Your task to perform on an android device: turn on javascript in the chrome app Image 0: 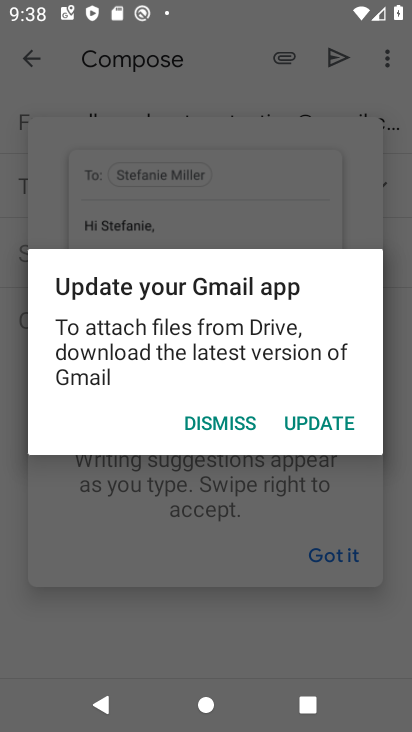
Step 0: press home button
Your task to perform on an android device: turn on javascript in the chrome app Image 1: 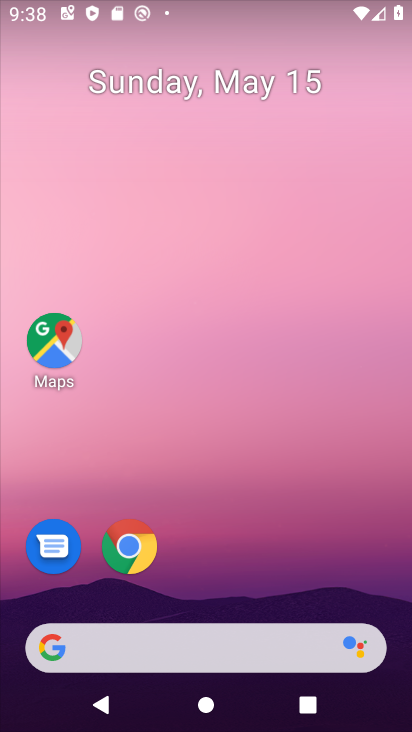
Step 1: click (142, 539)
Your task to perform on an android device: turn on javascript in the chrome app Image 2: 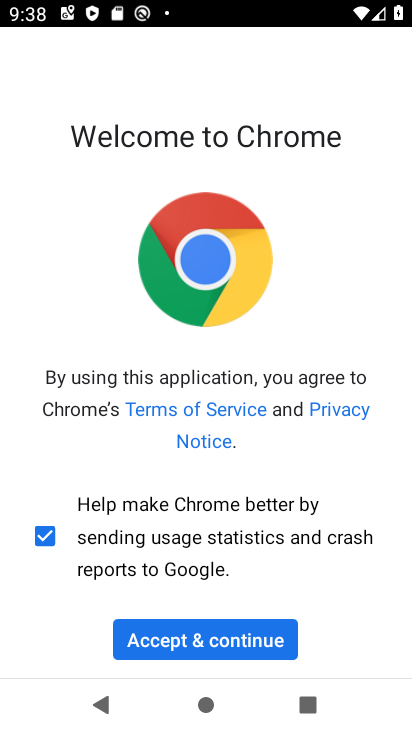
Step 2: click (204, 644)
Your task to perform on an android device: turn on javascript in the chrome app Image 3: 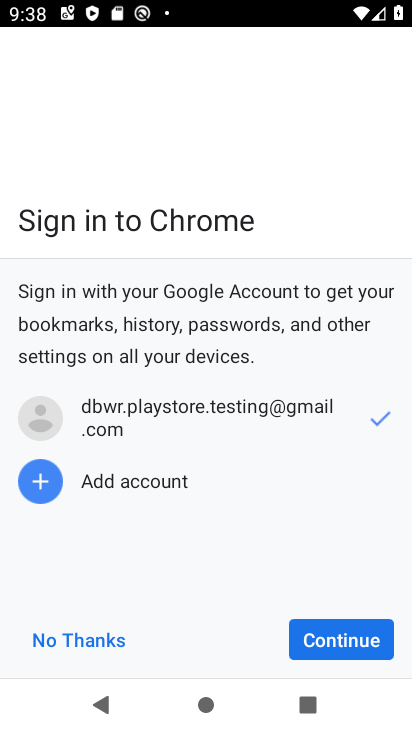
Step 3: click (318, 636)
Your task to perform on an android device: turn on javascript in the chrome app Image 4: 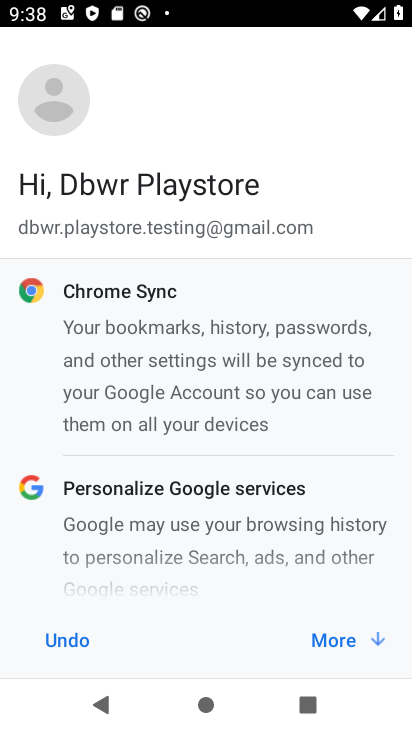
Step 4: click (326, 633)
Your task to perform on an android device: turn on javascript in the chrome app Image 5: 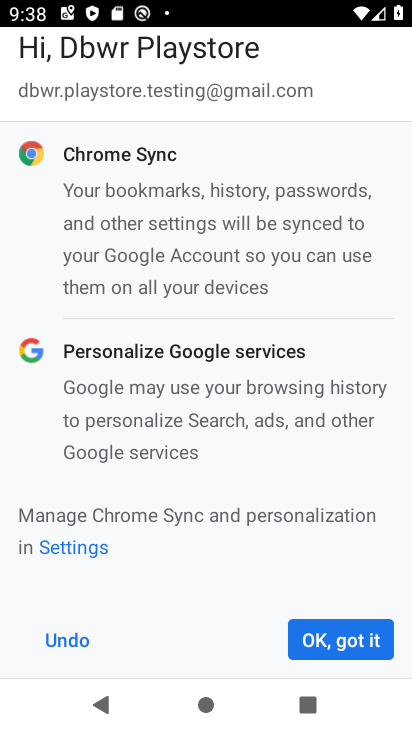
Step 5: click (347, 647)
Your task to perform on an android device: turn on javascript in the chrome app Image 6: 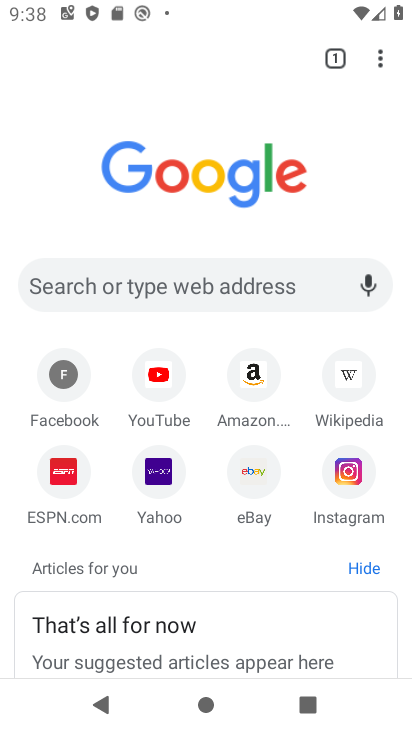
Step 6: click (378, 65)
Your task to perform on an android device: turn on javascript in the chrome app Image 7: 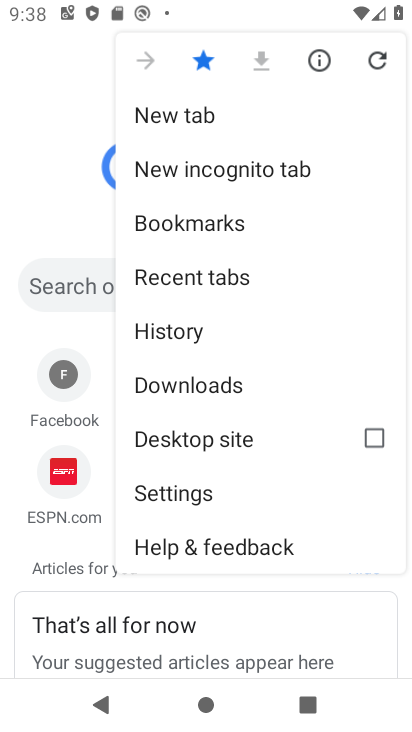
Step 7: click (223, 487)
Your task to perform on an android device: turn on javascript in the chrome app Image 8: 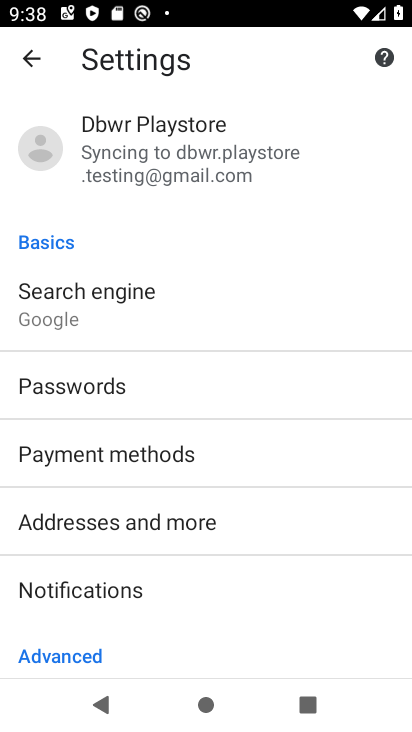
Step 8: drag from (233, 611) to (206, 136)
Your task to perform on an android device: turn on javascript in the chrome app Image 9: 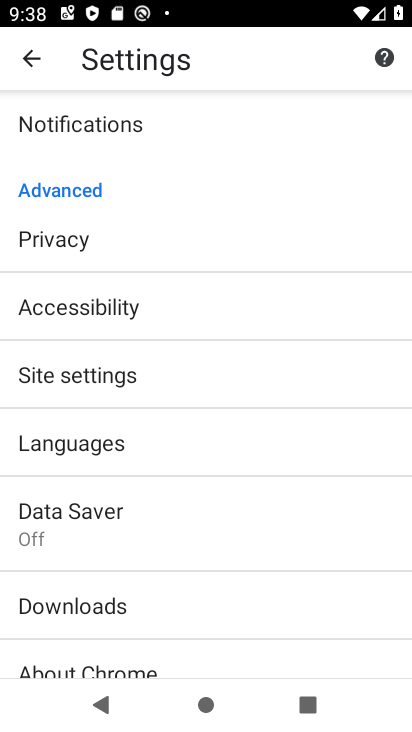
Step 9: drag from (142, 554) to (126, 281)
Your task to perform on an android device: turn on javascript in the chrome app Image 10: 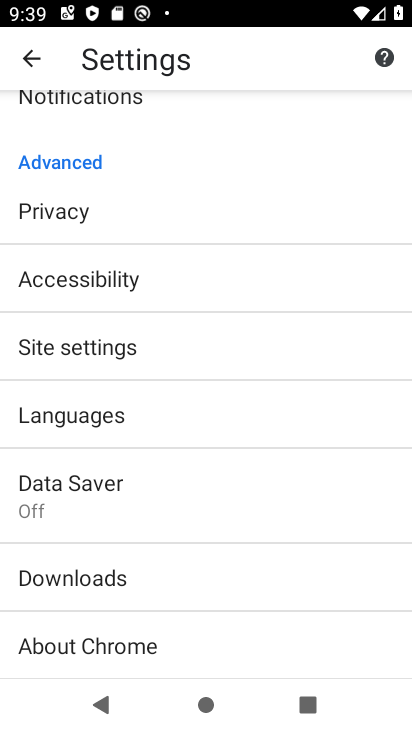
Step 10: click (125, 354)
Your task to perform on an android device: turn on javascript in the chrome app Image 11: 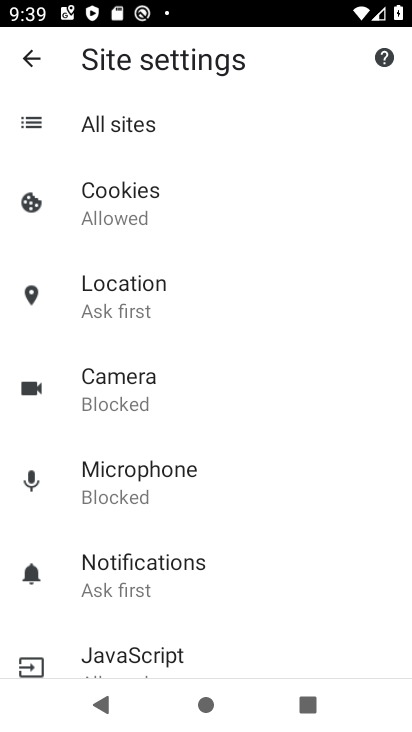
Step 11: click (160, 644)
Your task to perform on an android device: turn on javascript in the chrome app Image 12: 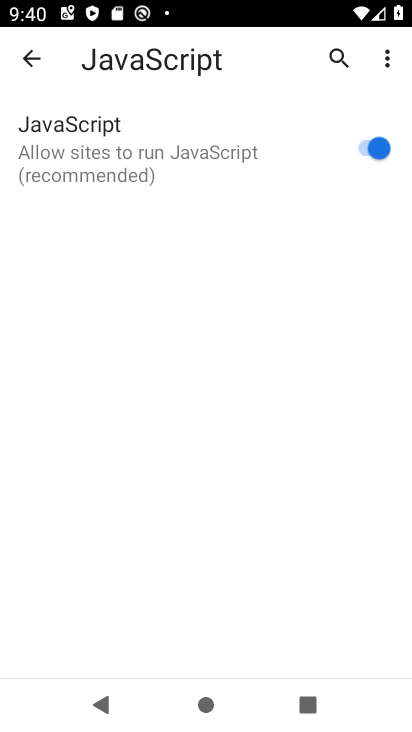
Step 12: task complete